Your task to perform on an android device: check storage Image 0: 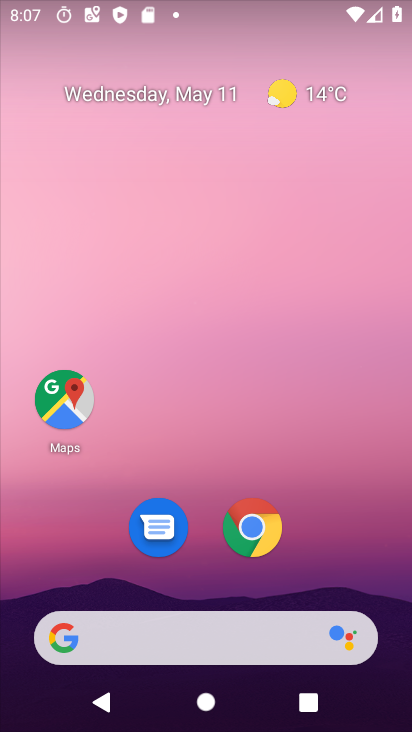
Step 0: drag from (231, 653) to (246, 141)
Your task to perform on an android device: check storage Image 1: 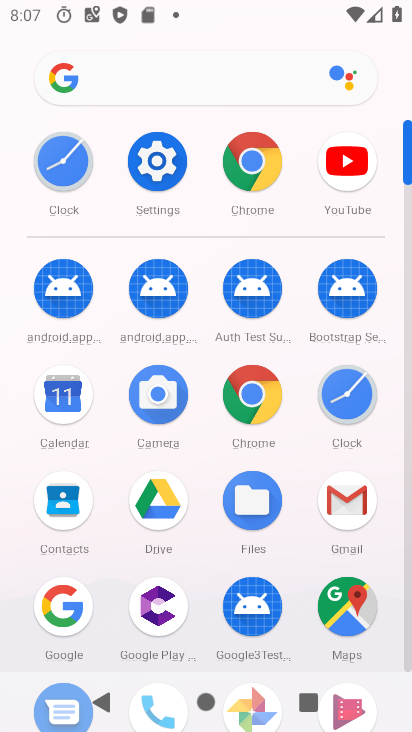
Step 1: click (156, 184)
Your task to perform on an android device: check storage Image 2: 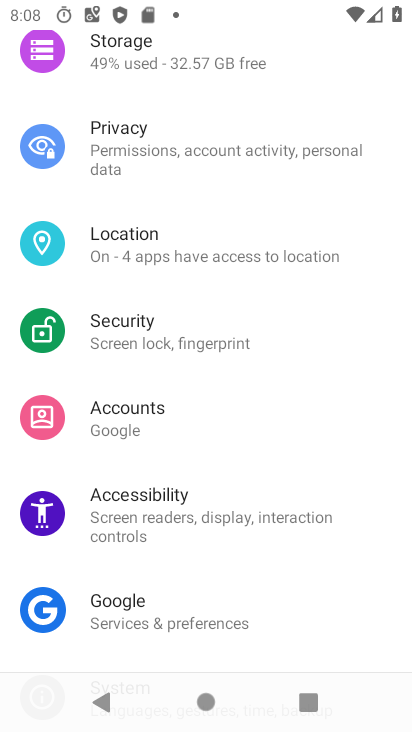
Step 2: drag from (170, 358) to (196, 205)
Your task to perform on an android device: check storage Image 3: 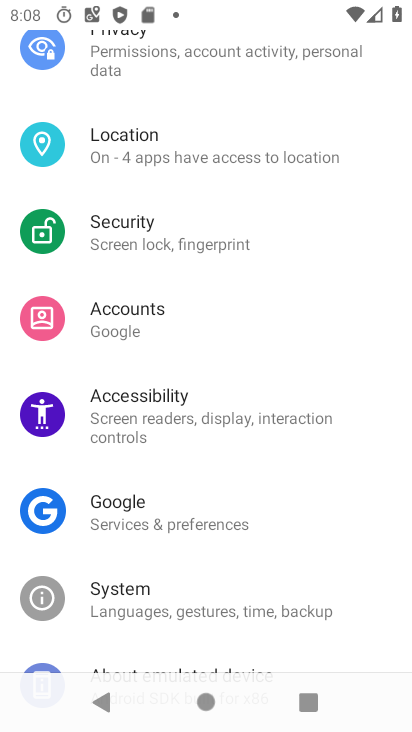
Step 3: drag from (293, 404) to (299, 220)
Your task to perform on an android device: check storage Image 4: 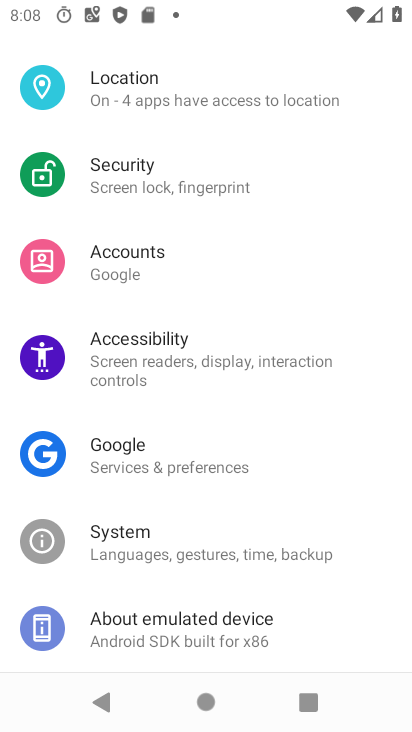
Step 4: drag from (285, 252) to (193, 565)
Your task to perform on an android device: check storage Image 5: 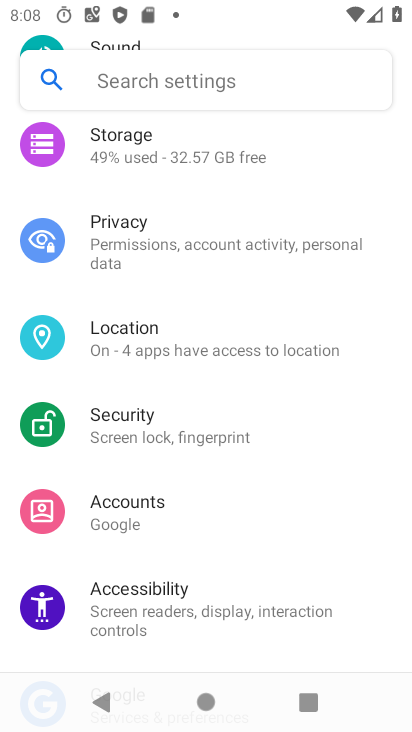
Step 5: drag from (243, 263) to (222, 448)
Your task to perform on an android device: check storage Image 6: 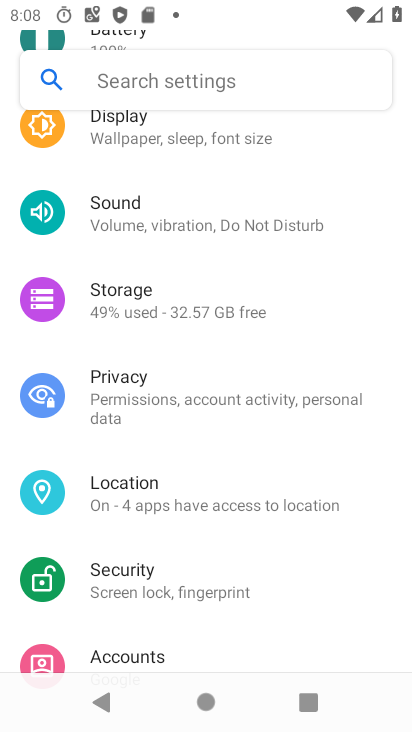
Step 6: click (226, 285)
Your task to perform on an android device: check storage Image 7: 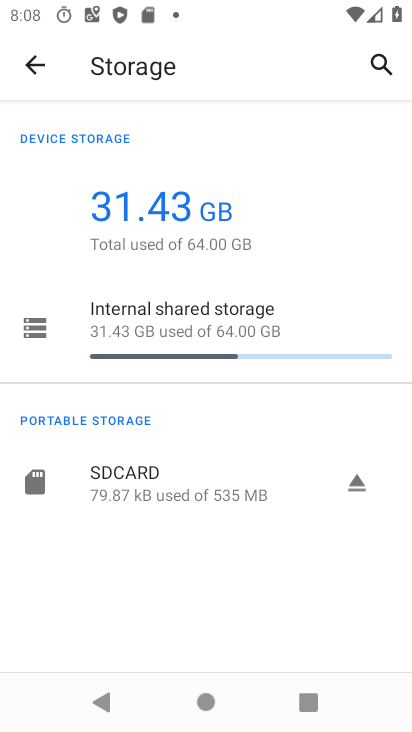
Step 7: click (223, 344)
Your task to perform on an android device: check storage Image 8: 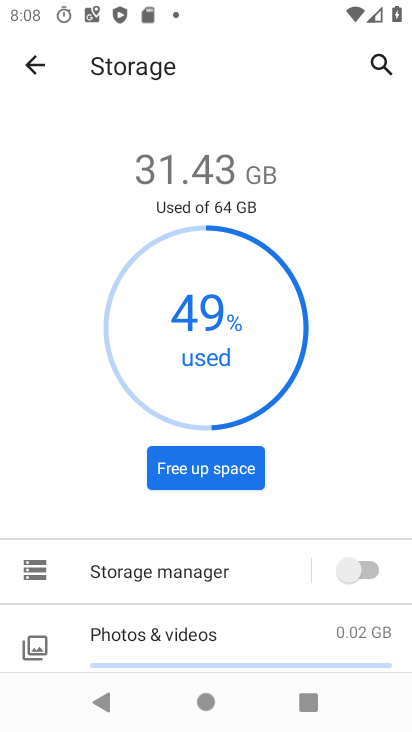
Step 8: task complete